Your task to perform on an android device: Set the phone to "Do not disturb". Image 0: 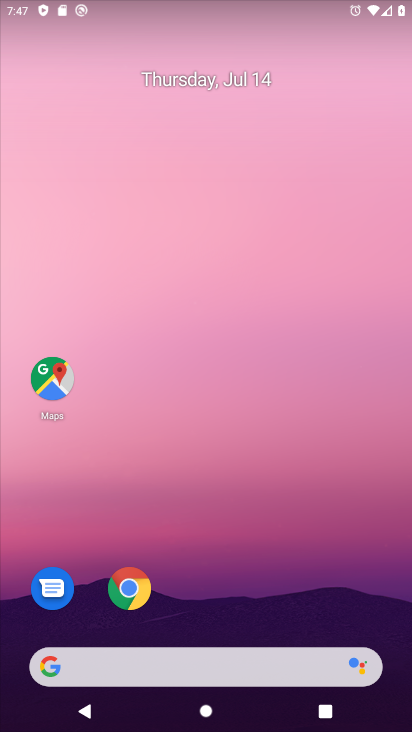
Step 0: drag from (35, 694) to (339, 15)
Your task to perform on an android device: Set the phone to "Do not disturb". Image 1: 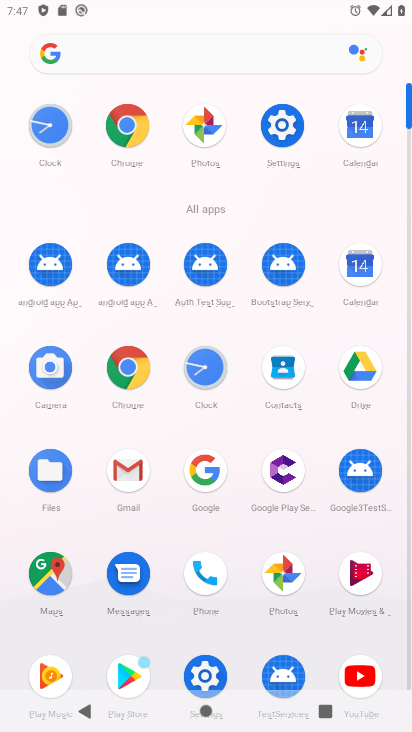
Step 1: click (201, 661)
Your task to perform on an android device: Set the phone to "Do not disturb". Image 2: 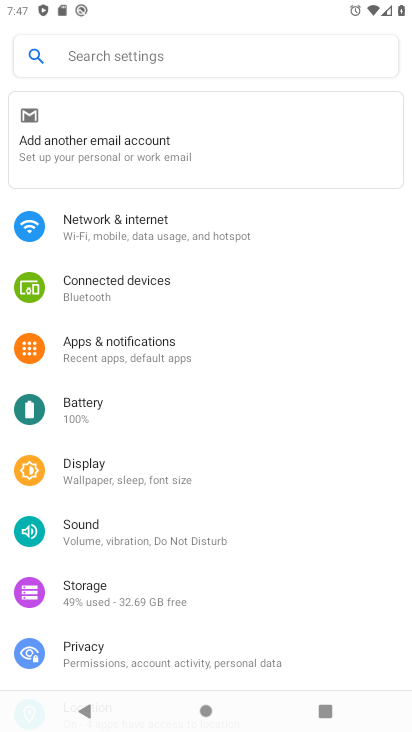
Step 2: click (147, 543)
Your task to perform on an android device: Set the phone to "Do not disturb". Image 3: 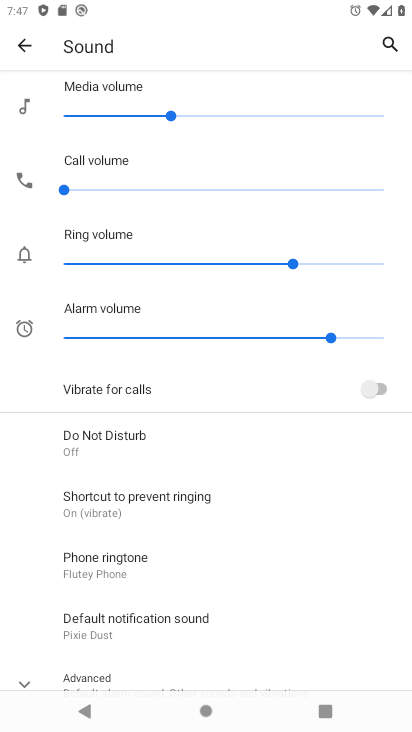
Step 3: click (95, 438)
Your task to perform on an android device: Set the phone to "Do not disturb". Image 4: 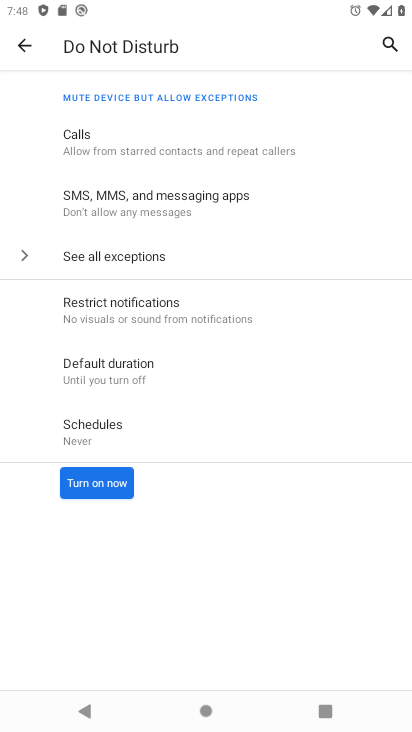
Step 4: click (86, 482)
Your task to perform on an android device: Set the phone to "Do not disturb". Image 5: 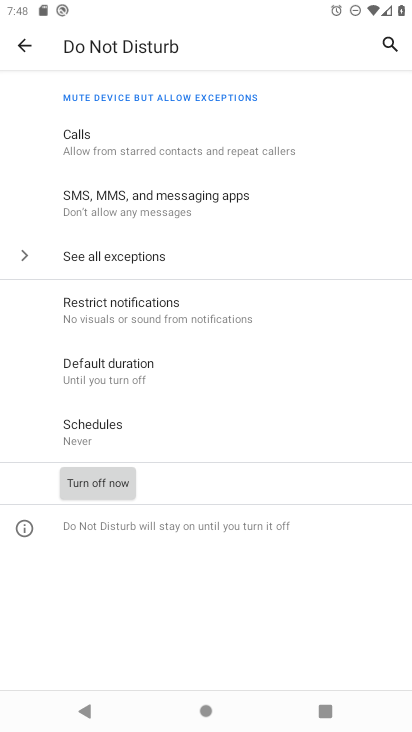
Step 5: task complete